Your task to perform on an android device: toggle pop-ups in chrome Image 0: 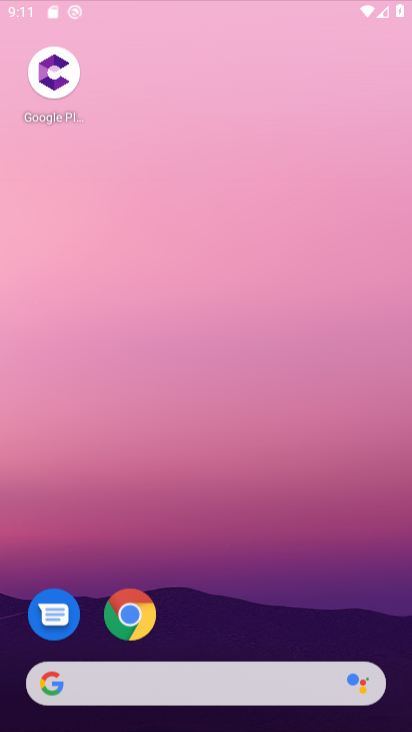
Step 0: press home button
Your task to perform on an android device: toggle pop-ups in chrome Image 1: 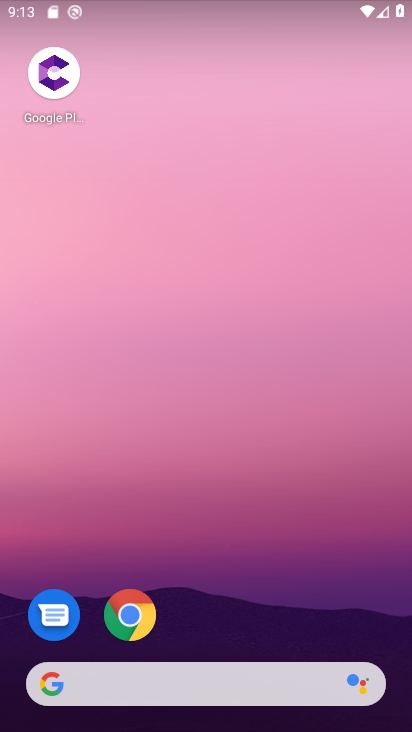
Step 1: drag from (288, 714) to (327, 178)
Your task to perform on an android device: toggle pop-ups in chrome Image 2: 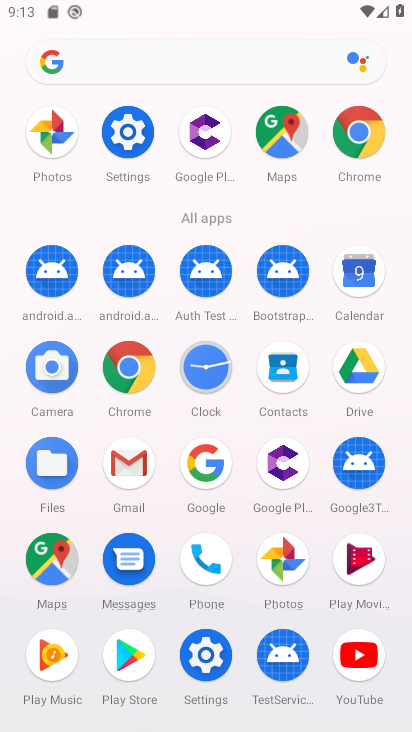
Step 2: click (333, 143)
Your task to perform on an android device: toggle pop-ups in chrome Image 3: 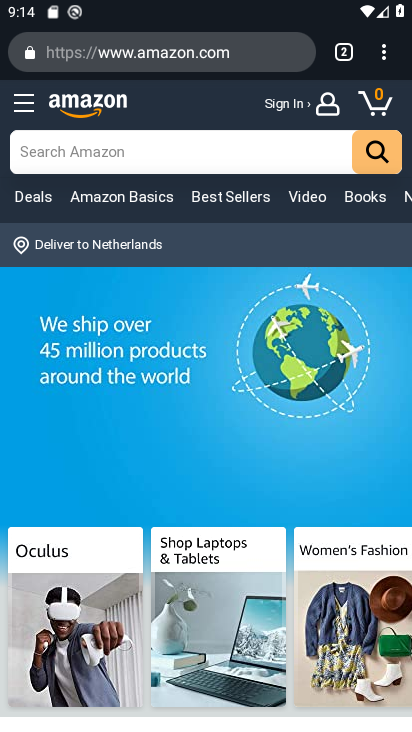
Step 3: click (377, 66)
Your task to perform on an android device: toggle pop-ups in chrome Image 4: 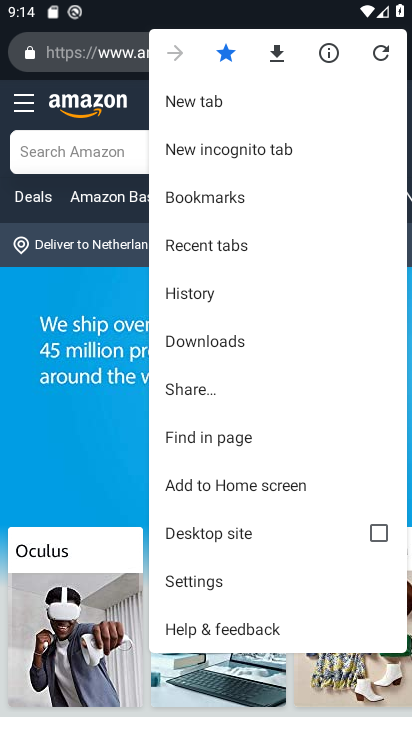
Step 4: click (186, 586)
Your task to perform on an android device: toggle pop-ups in chrome Image 5: 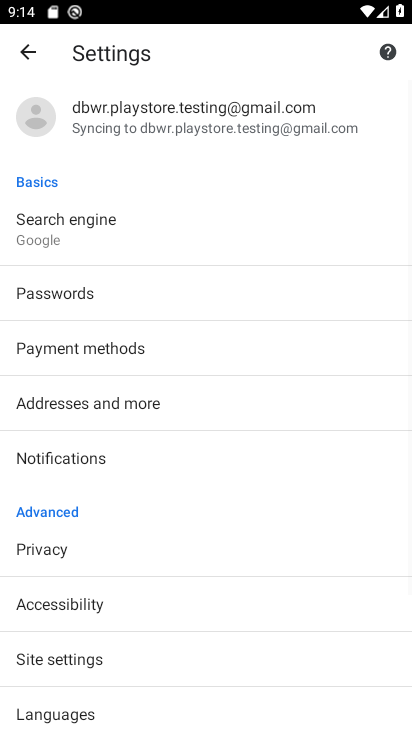
Step 5: click (94, 650)
Your task to perform on an android device: toggle pop-ups in chrome Image 6: 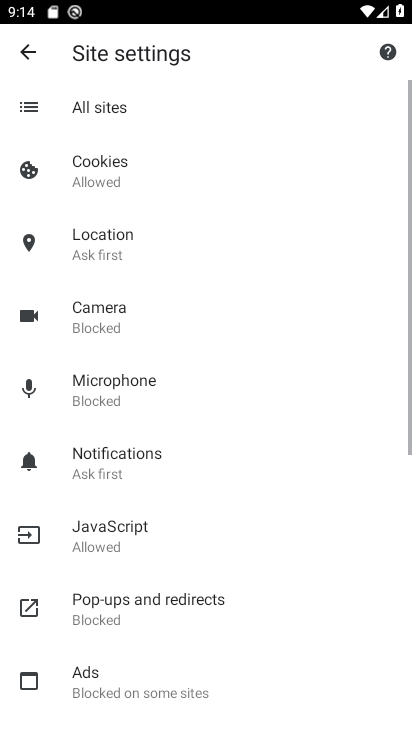
Step 6: click (137, 605)
Your task to perform on an android device: toggle pop-ups in chrome Image 7: 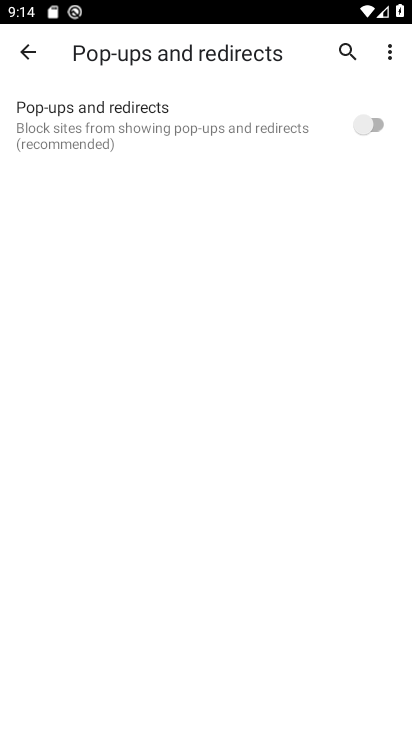
Step 7: task complete